Your task to perform on an android device: Open privacy settings Image 0: 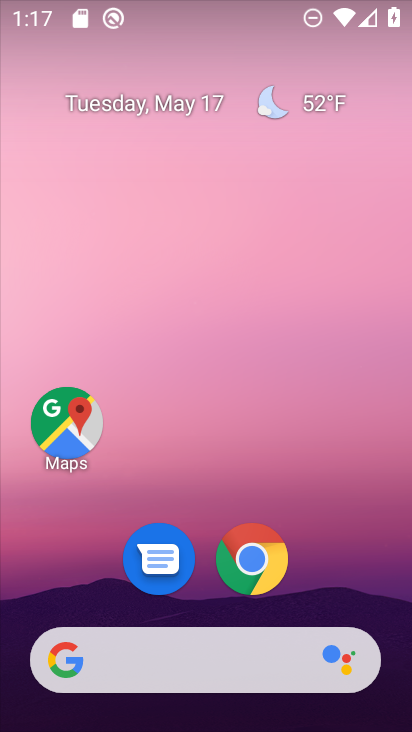
Step 0: drag from (338, 560) to (266, 137)
Your task to perform on an android device: Open privacy settings Image 1: 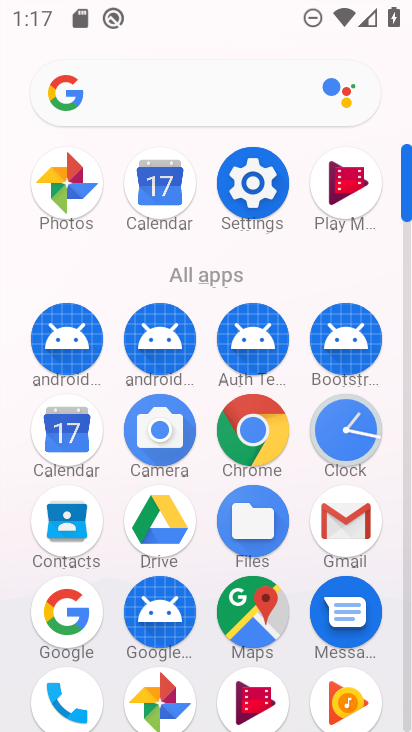
Step 1: click (250, 184)
Your task to perform on an android device: Open privacy settings Image 2: 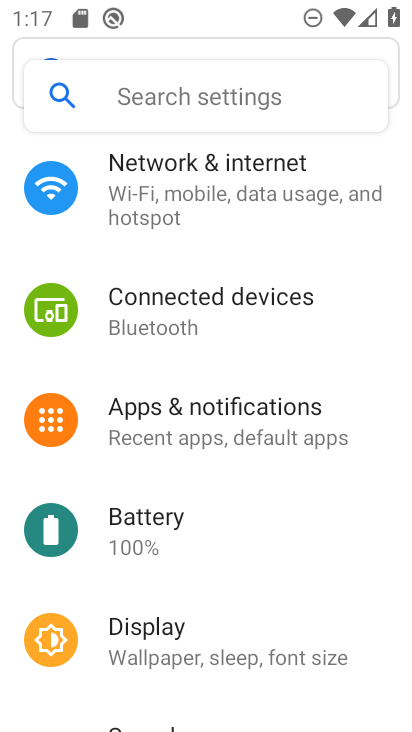
Step 2: drag from (208, 550) to (259, 451)
Your task to perform on an android device: Open privacy settings Image 3: 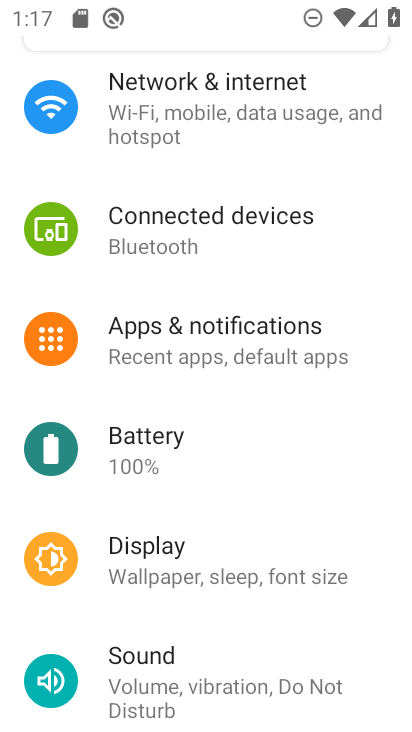
Step 3: drag from (209, 610) to (257, 483)
Your task to perform on an android device: Open privacy settings Image 4: 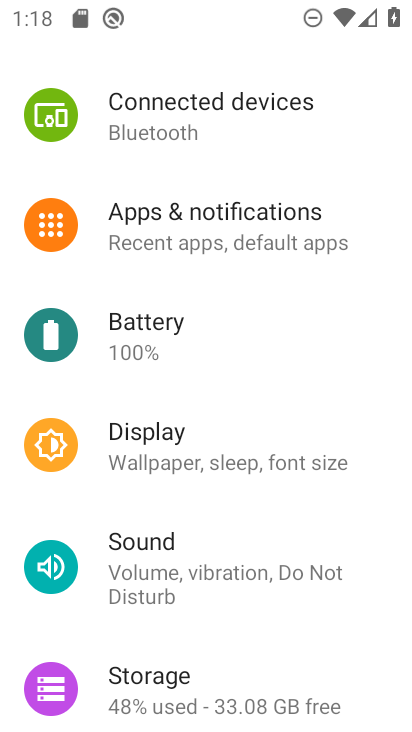
Step 4: drag from (193, 613) to (251, 420)
Your task to perform on an android device: Open privacy settings Image 5: 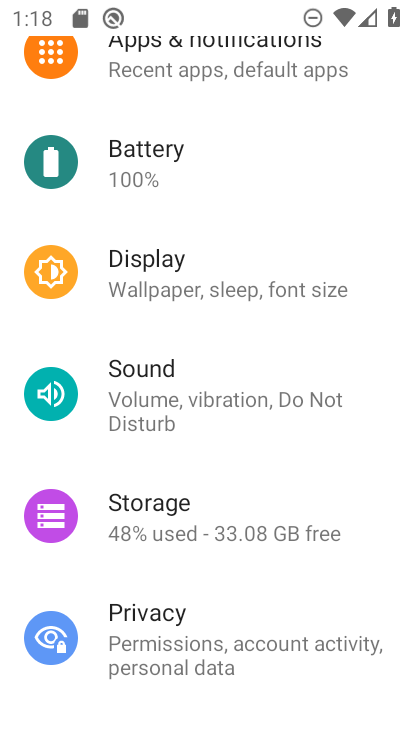
Step 5: click (133, 618)
Your task to perform on an android device: Open privacy settings Image 6: 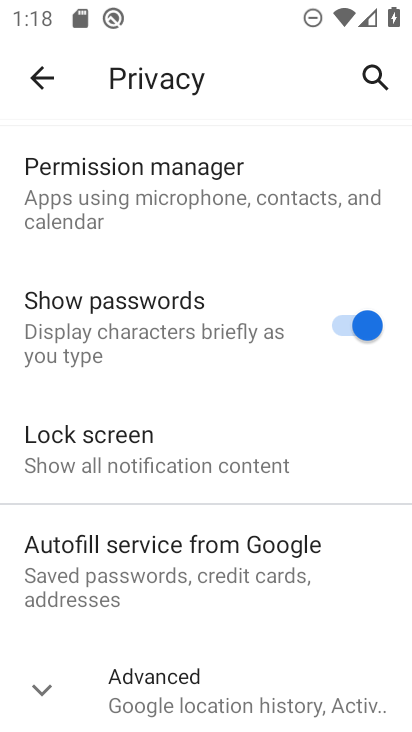
Step 6: task complete